Your task to perform on an android device: Open Reddit.com Image 0: 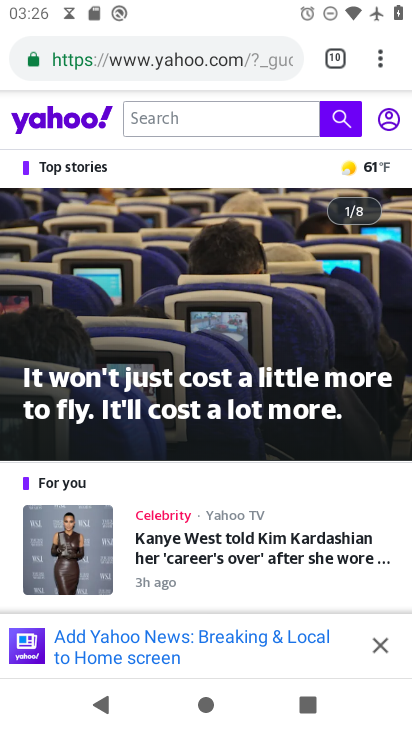
Step 0: press home button
Your task to perform on an android device: Open Reddit.com Image 1: 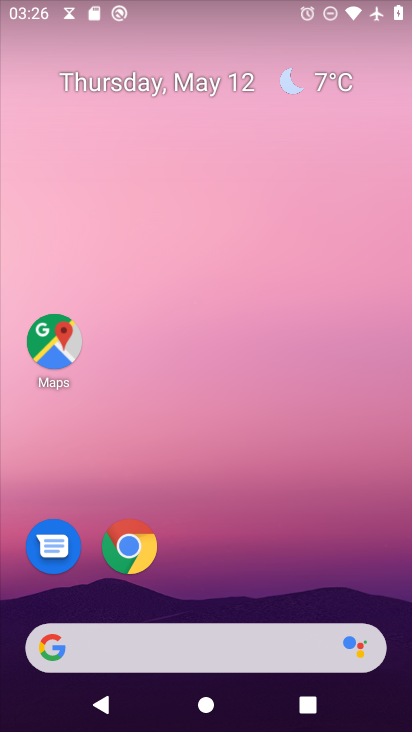
Step 1: click (135, 552)
Your task to perform on an android device: Open Reddit.com Image 2: 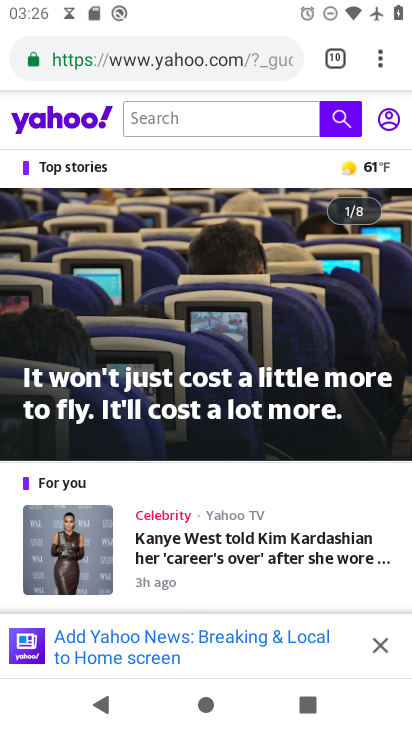
Step 2: drag from (378, 66) to (286, 121)
Your task to perform on an android device: Open Reddit.com Image 3: 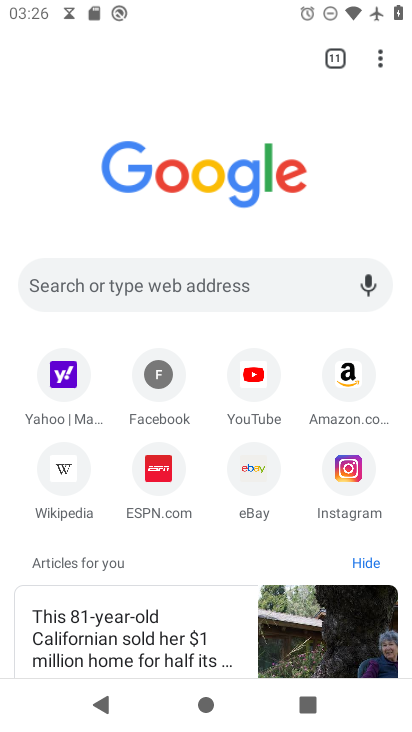
Step 3: click (169, 292)
Your task to perform on an android device: Open Reddit.com Image 4: 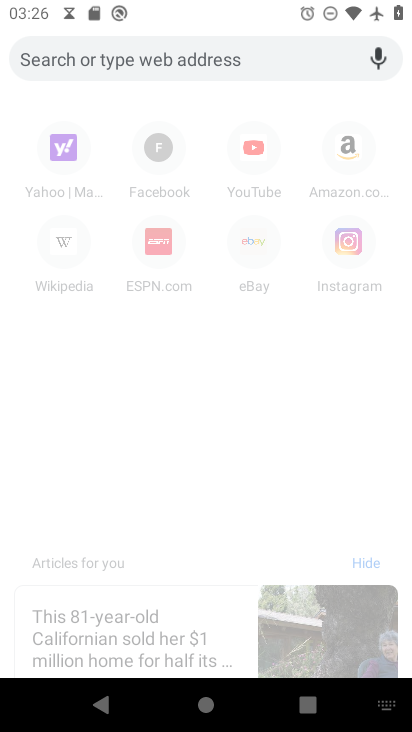
Step 4: type "reddit.com"
Your task to perform on an android device: Open Reddit.com Image 5: 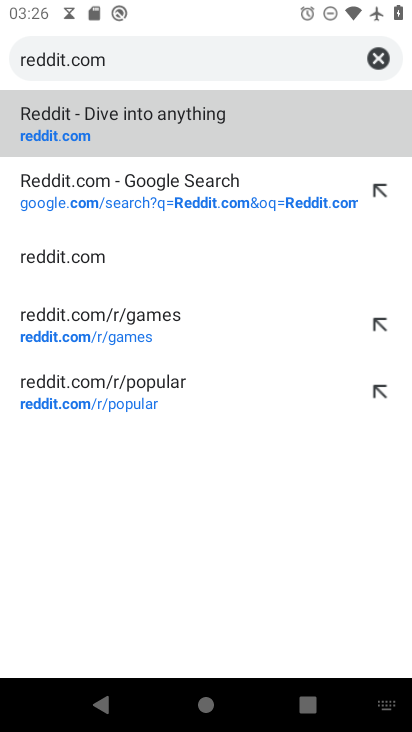
Step 5: click (192, 120)
Your task to perform on an android device: Open Reddit.com Image 6: 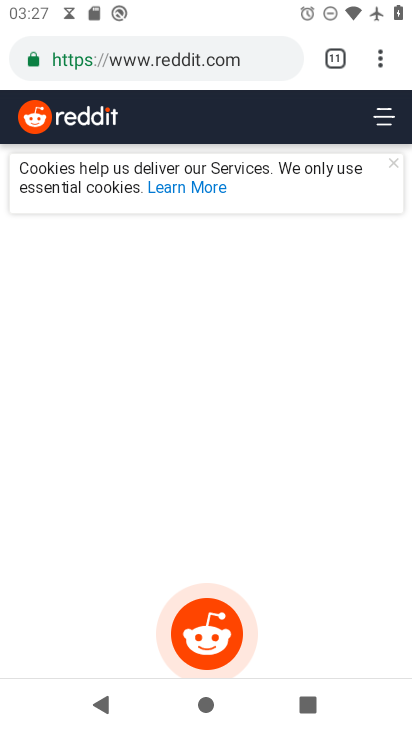
Step 6: task complete